Your task to perform on an android device: When is my next meeting? Image 0: 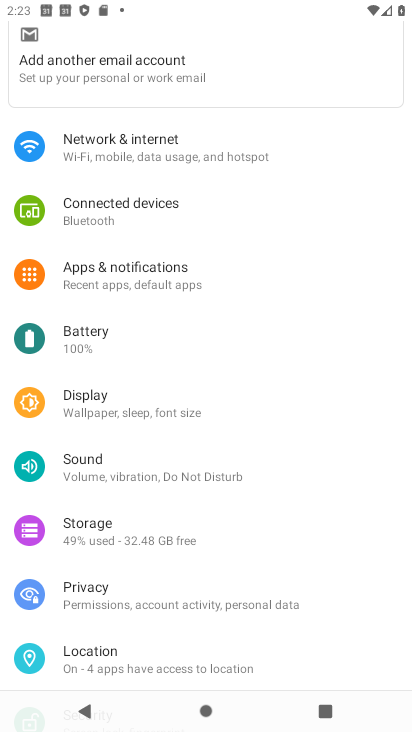
Step 0: press home button
Your task to perform on an android device: When is my next meeting? Image 1: 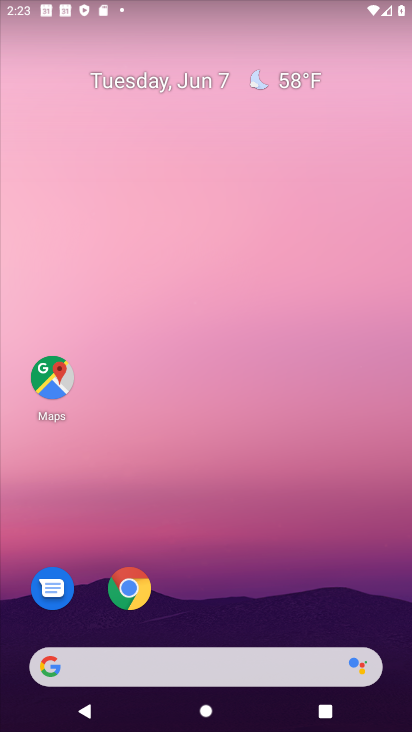
Step 1: drag from (239, 629) to (244, 1)
Your task to perform on an android device: When is my next meeting? Image 2: 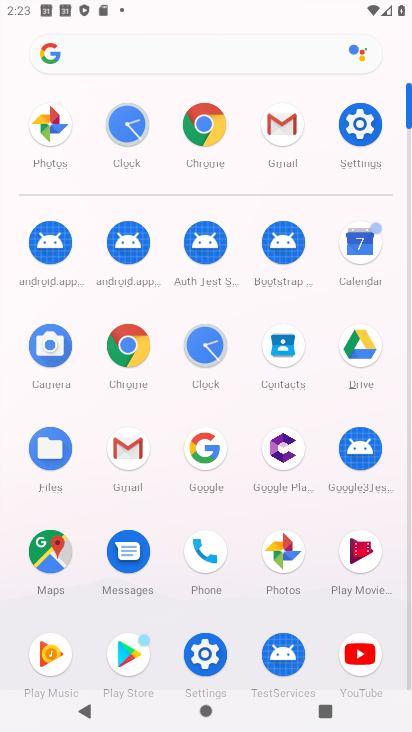
Step 2: click (283, 347)
Your task to perform on an android device: When is my next meeting? Image 3: 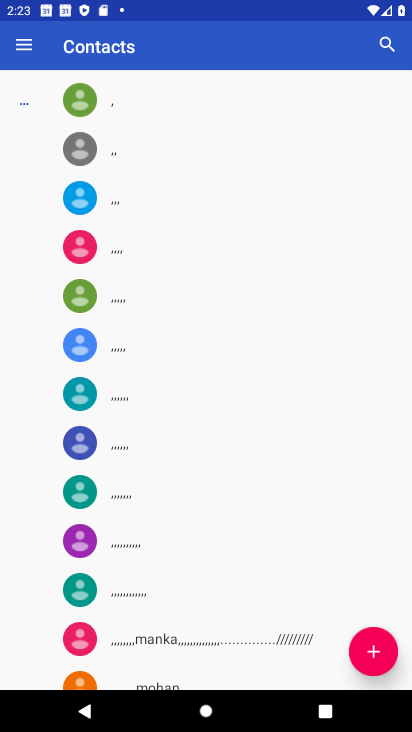
Step 3: task complete